Your task to perform on an android device: check data usage Image 0: 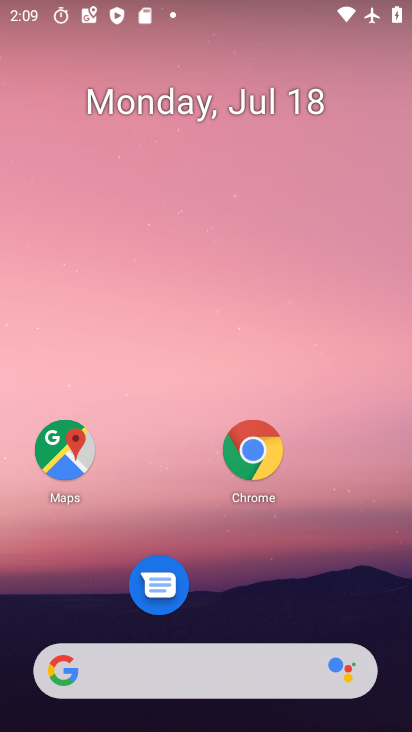
Step 0: press home button
Your task to perform on an android device: check data usage Image 1: 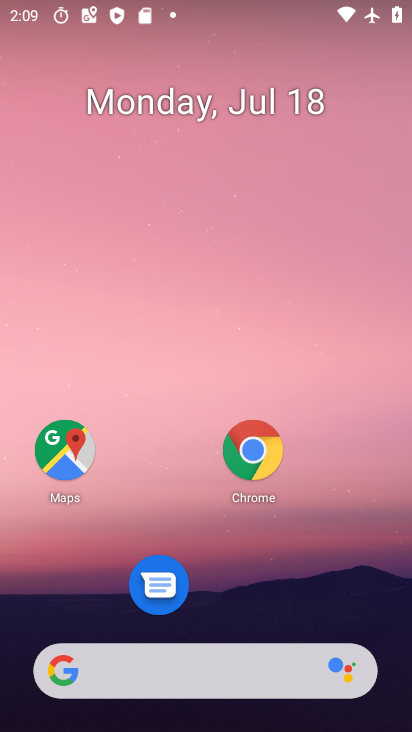
Step 1: press home button
Your task to perform on an android device: check data usage Image 2: 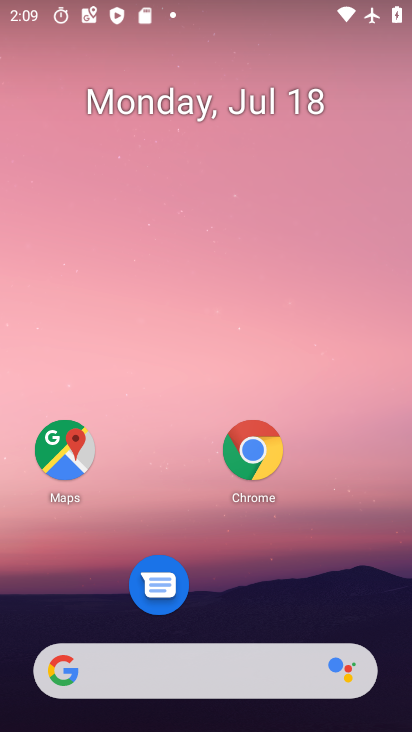
Step 2: drag from (219, 664) to (354, 6)
Your task to perform on an android device: check data usage Image 3: 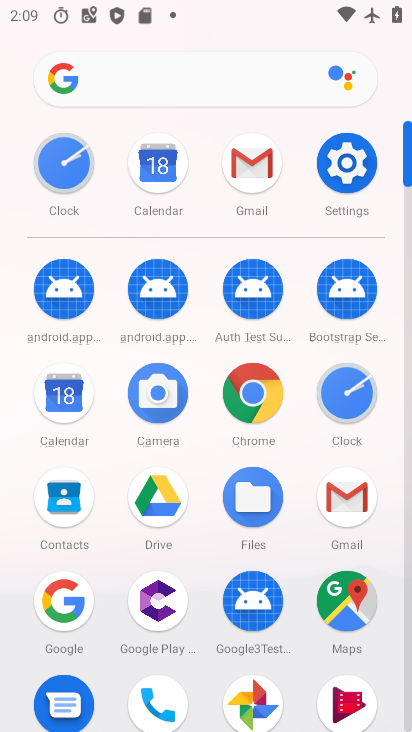
Step 3: click (353, 175)
Your task to perform on an android device: check data usage Image 4: 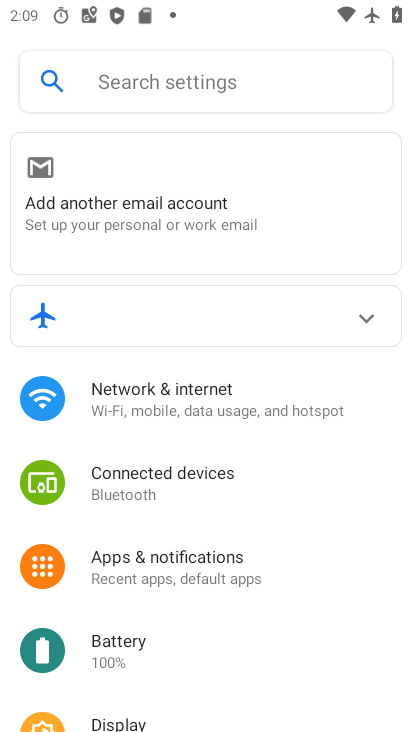
Step 4: click (195, 405)
Your task to perform on an android device: check data usage Image 5: 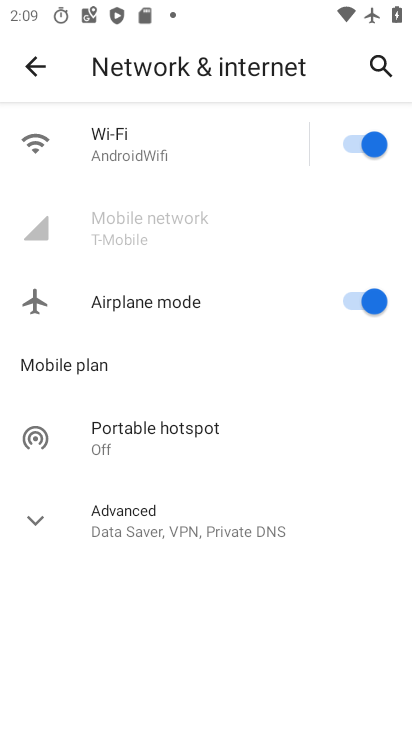
Step 5: click (132, 145)
Your task to perform on an android device: check data usage Image 6: 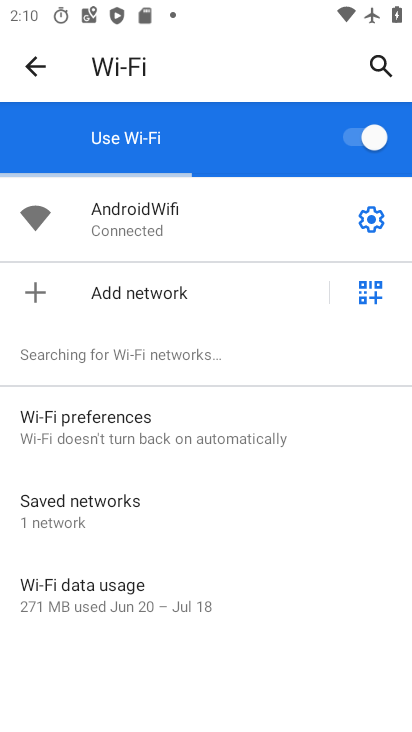
Step 6: click (132, 590)
Your task to perform on an android device: check data usage Image 7: 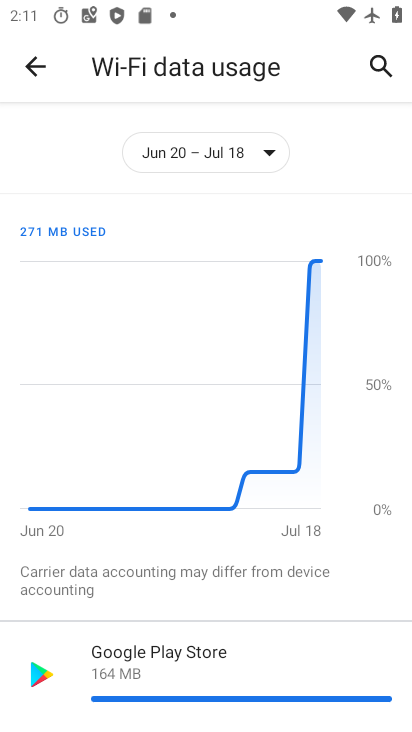
Step 7: task complete